Your task to perform on an android device: toggle improve location accuracy Image 0: 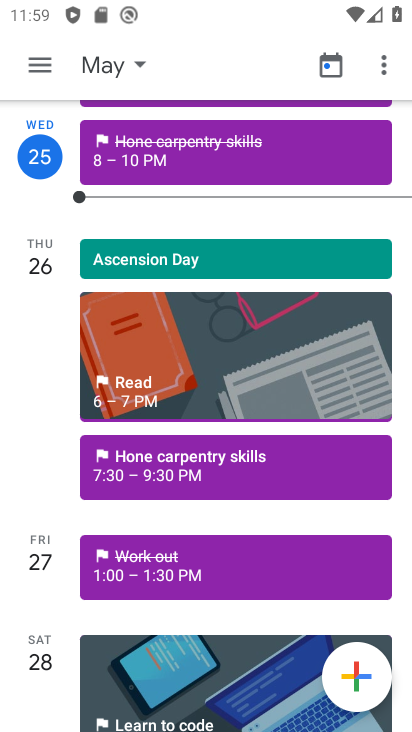
Step 0: press home button
Your task to perform on an android device: toggle improve location accuracy Image 1: 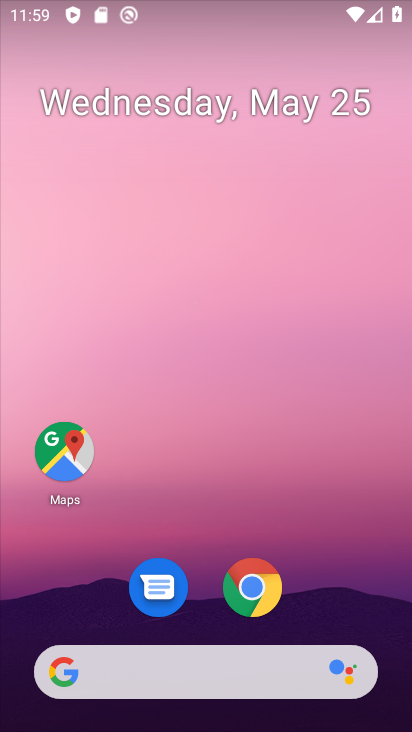
Step 1: drag from (373, 587) to (362, 154)
Your task to perform on an android device: toggle improve location accuracy Image 2: 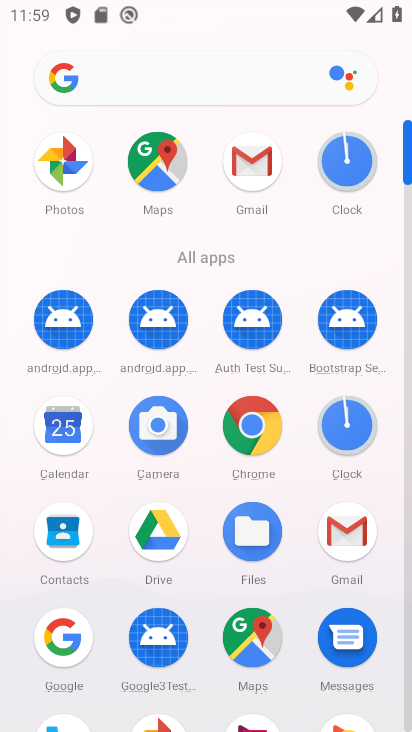
Step 2: drag from (387, 595) to (391, 291)
Your task to perform on an android device: toggle improve location accuracy Image 3: 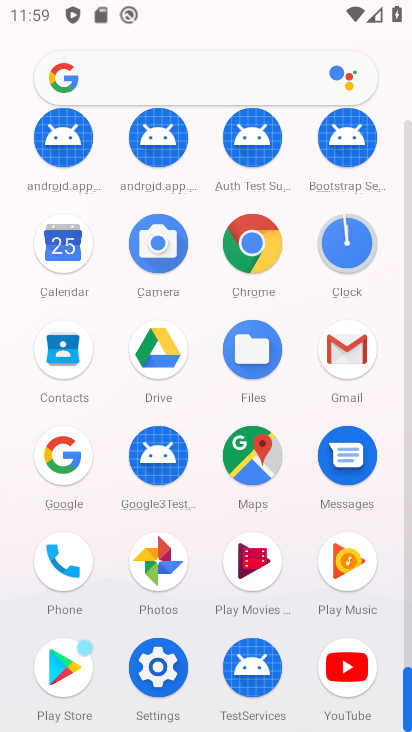
Step 3: click (150, 678)
Your task to perform on an android device: toggle improve location accuracy Image 4: 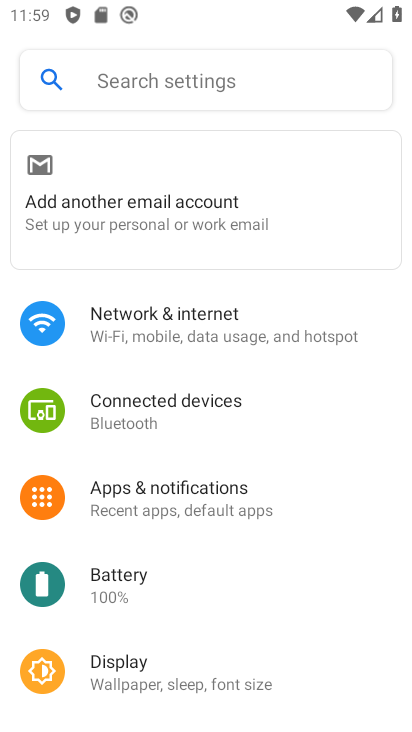
Step 4: drag from (325, 591) to (340, 442)
Your task to perform on an android device: toggle improve location accuracy Image 5: 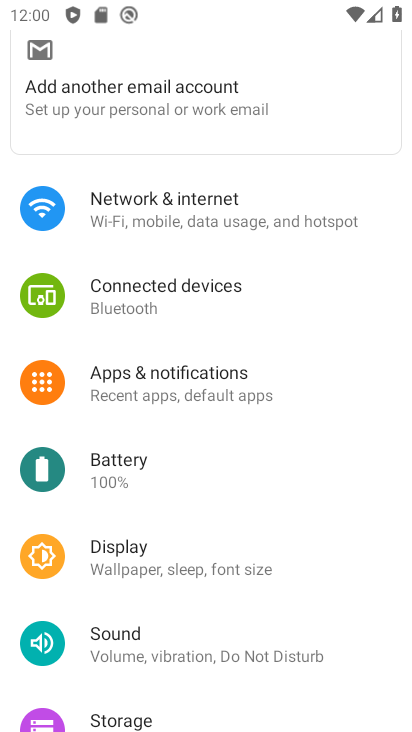
Step 5: drag from (348, 599) to (364, 506)
Your task to perform on an android device: toggle improve location accuracy Image 6: 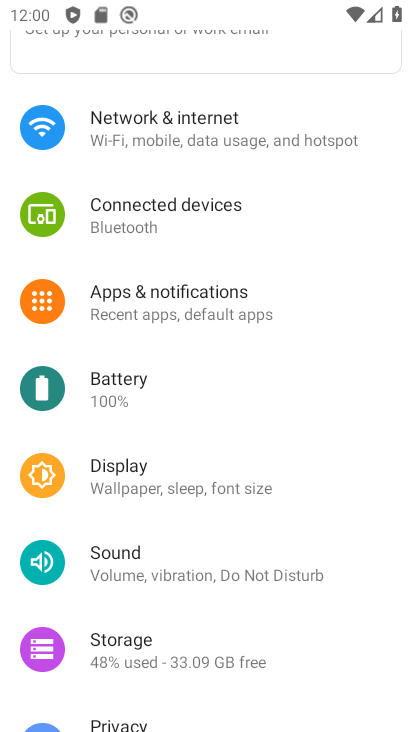
Step 6: drag from (346, 577) to (350, 476)
Your task to perform on an android device: toggle improve location accuracy Image 7: 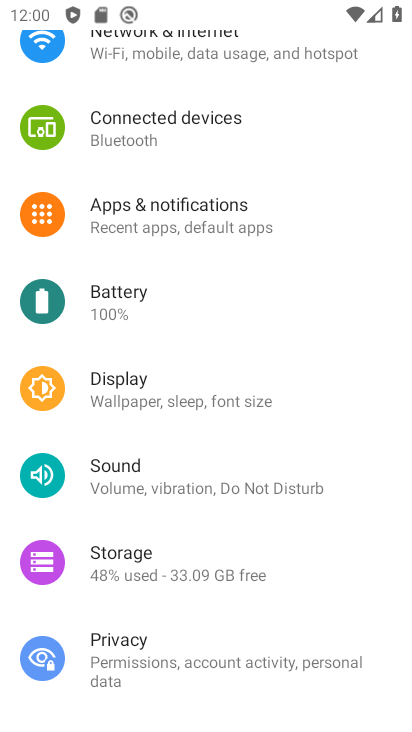
Step 7: drag from (354, 576) to (361, 455)
Your task to perform on an android device: toggle improve location accuracy Image 8: 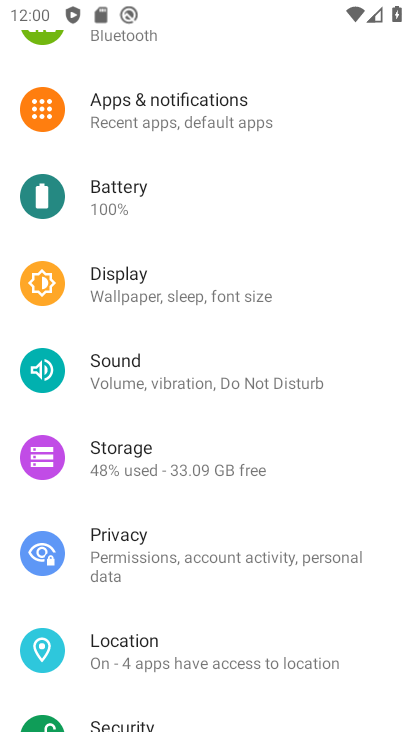
Step 8: drag from (358, 617) to (365, 488)
Your task to perform on an android device: toggle improve location accuracy Image 9: 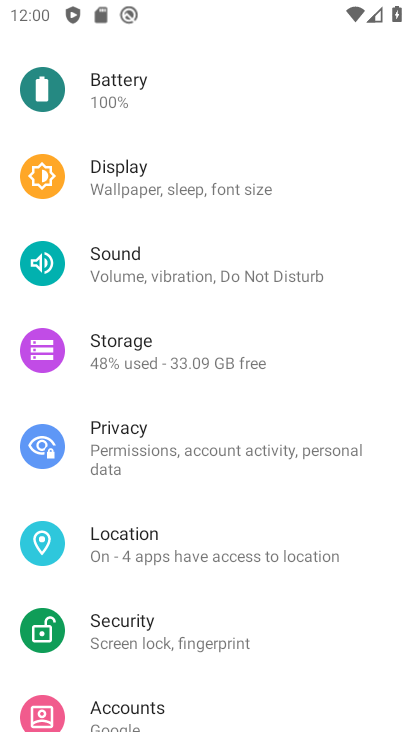
Step 9: drag from (328, 616) to (340, 487)
Your task to perform on an android device: toggle improve location accuracy Image 10: 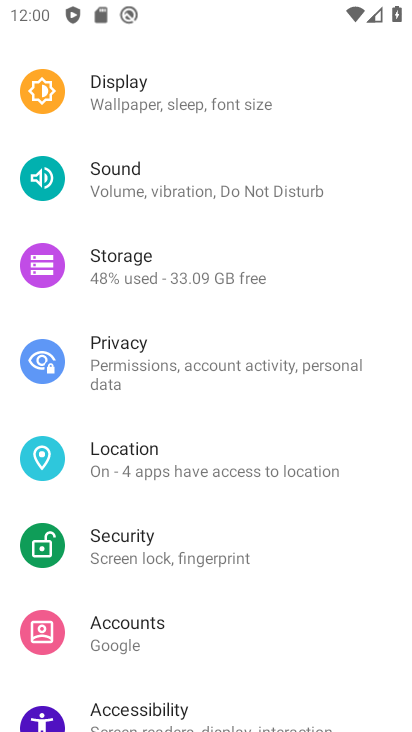
Step 10: drag from (346, 636) to (342, 513)
Your task to perform on an android device: toggle improve location accuracy Image 11: 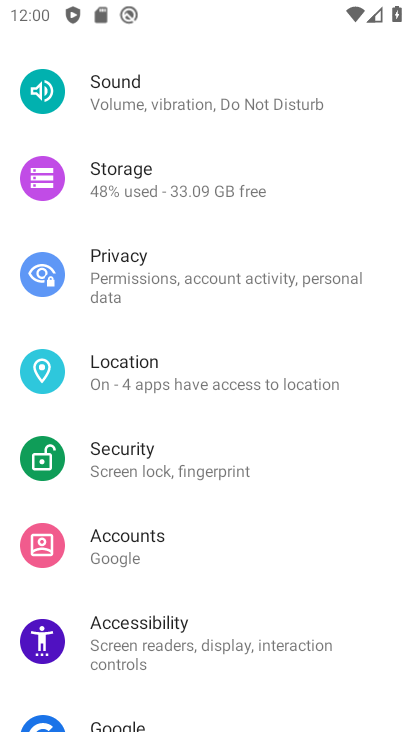
Step 11: drag from (346, 612) to (364, 471)
Your task to perform on an android device: toggle improve location accuracy Image 12: 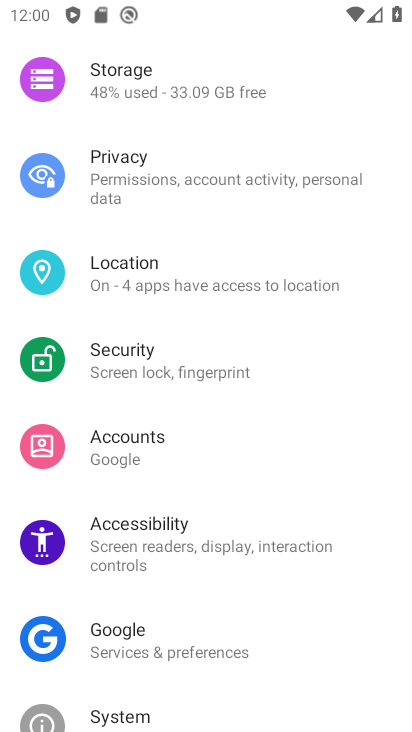
Step 12: drag from (354, 628) to (372, 486)
Your task to perform on an android device: toggle improve location accuracy Image 13: 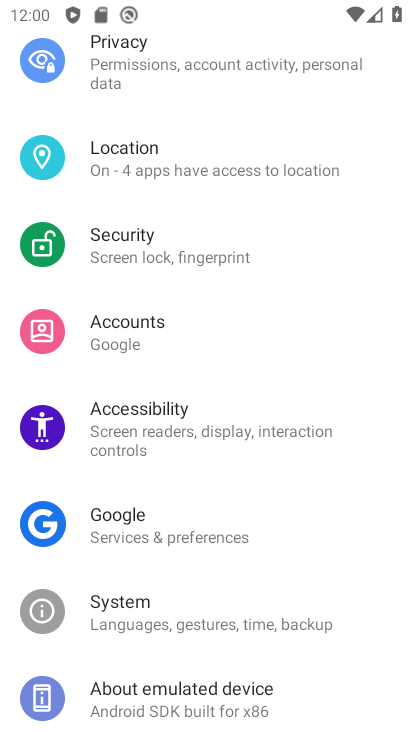
Step 13: drag from (352, 395) to (349, 475)
Your task to perform on an android device: toggle improve location accuracy Image 14: 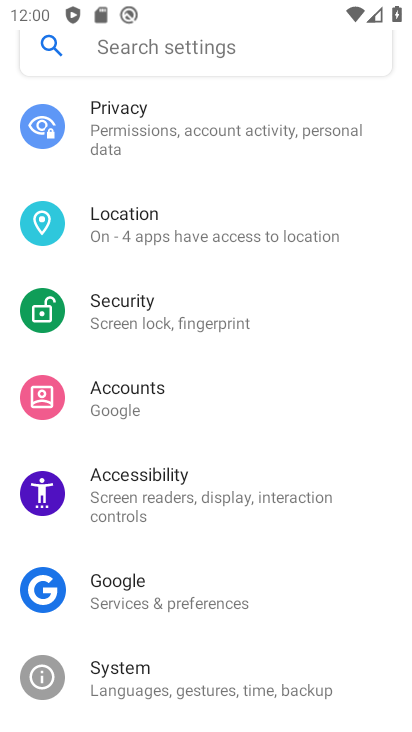
Step 14: drag from (351, 365) to (341, 452)
Your task to perform on an android device: toggle improve location accuracy Image 15: 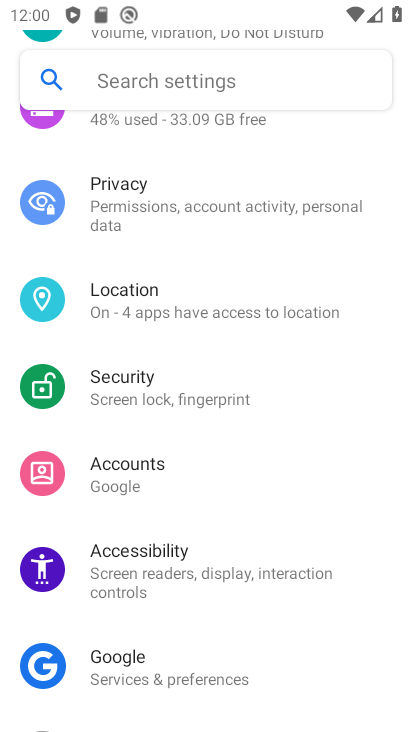
Step 15: drag from (365, 356) to (371, 525)
Your task to perform on an android device: toggle improve location accuracy Image 16: 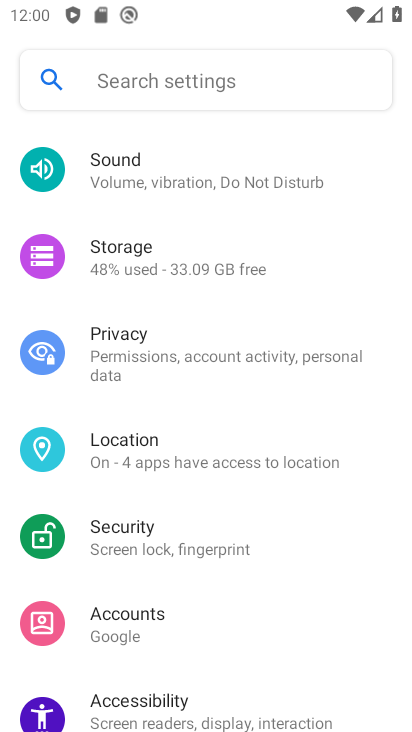
Step 16: click (331, 464)
Your task to perform on an android device: toggle improve location accuracy Image 17: 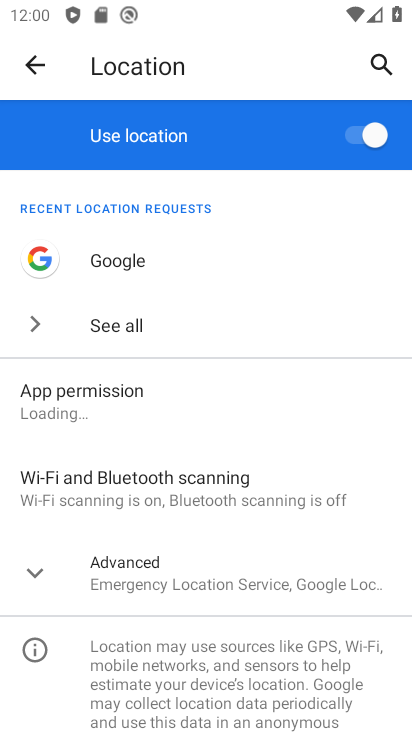
Step 17: click (344, 564)
Your task to perform on an android device: toggle improve location accuracy Image 18: 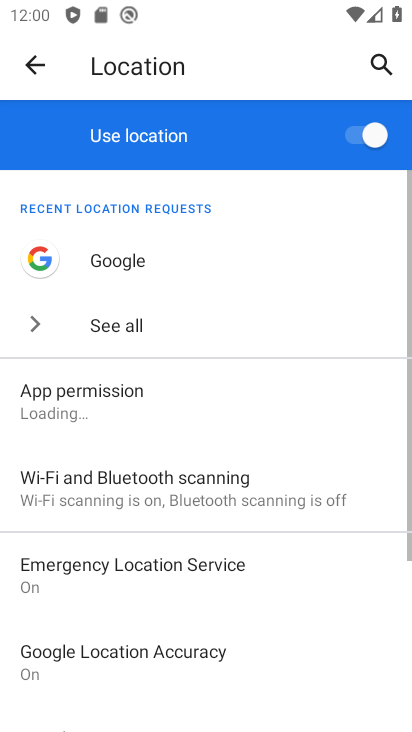
Step 18: drag from (344, 564) to (365, 461)
Your task to perform on an android device: toggle improve location accuracy Image 19: 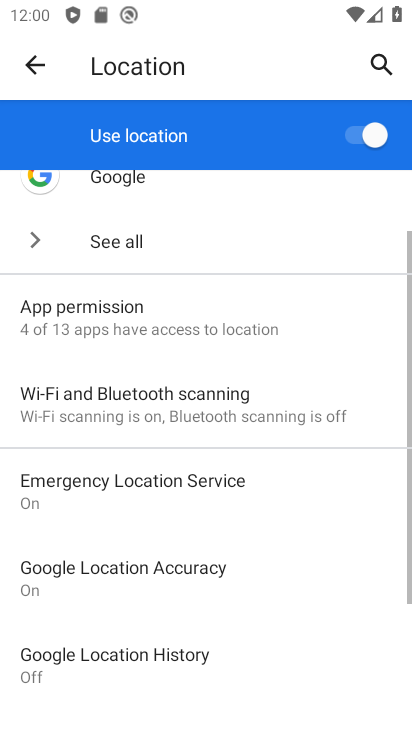
Step 19: drag from (368, 584) to (374, 462)
Your task to perform on an android device: toggle improve location accuracy Image 20: 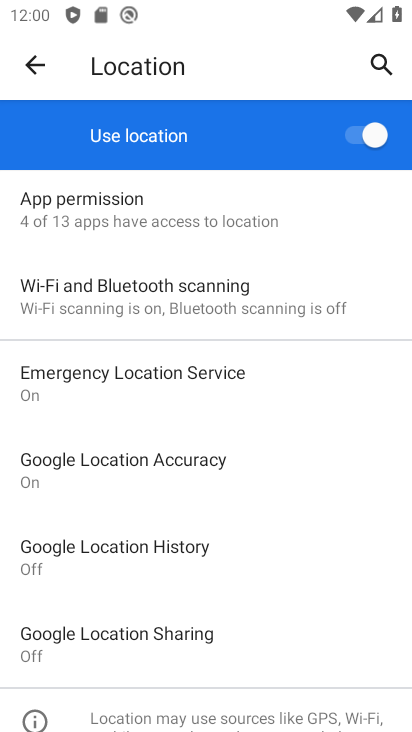
Step 20: drag from (342, 589) to (346, 481)
Your task to perform on an android device: toggle improve location accuracy Image 21: 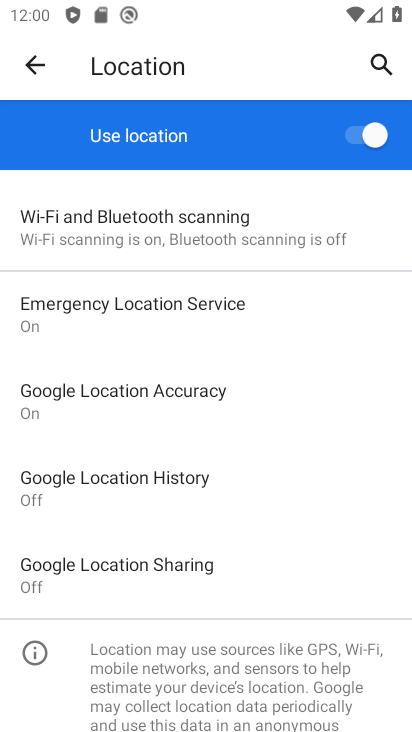
Step 21: click (185, 393)
Your task to perform on an android device: toggle improve location accuracy Image 22: 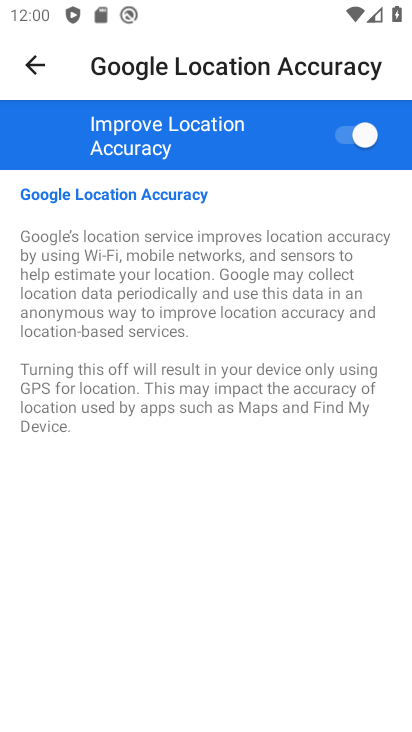
Step 22: click (369, 132)
Your task to perform on an android device: toggle improve location accuracy Image 23: 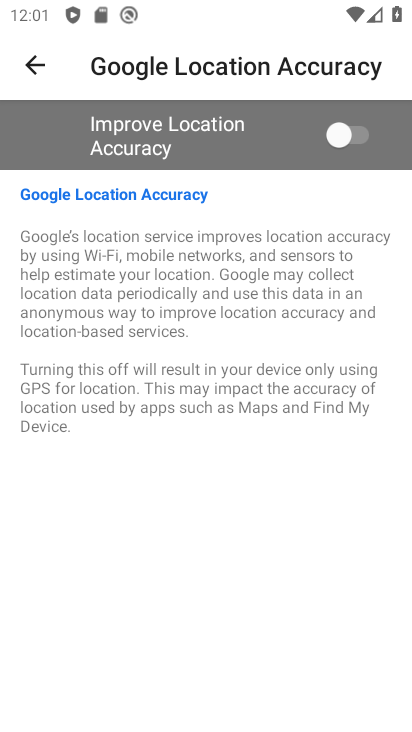
Step 23: task complete